Your task to perform on an android device: toggle notification dots Image 0: 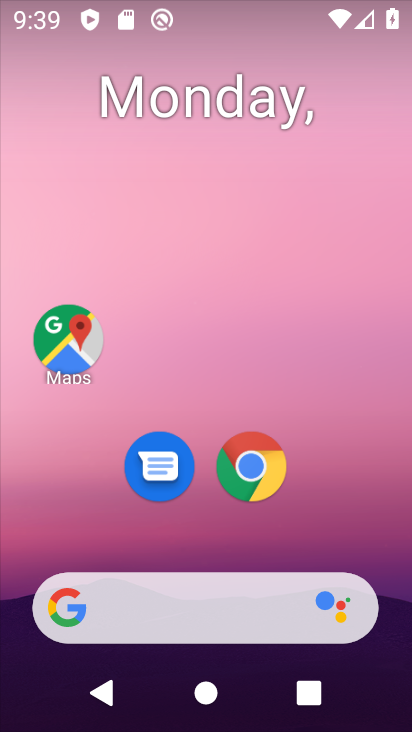
Step 0: press home button
Your task to perform on an android device: toggle notification dots Image 1: 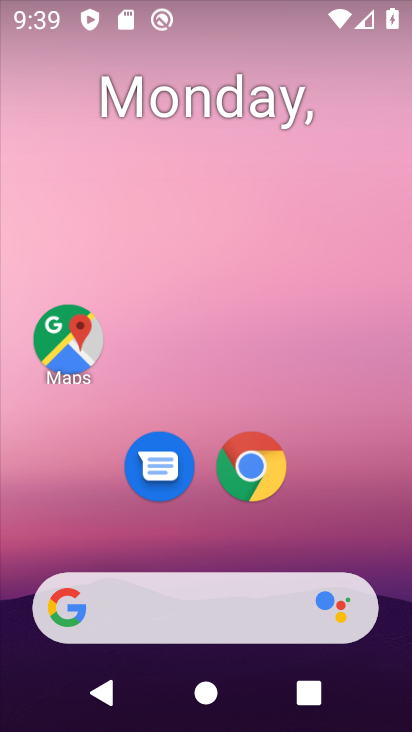
Step 1: drag from (380, 671) to (310, 0)
Your task to perform on an android device: toggle notification dots Image 2: 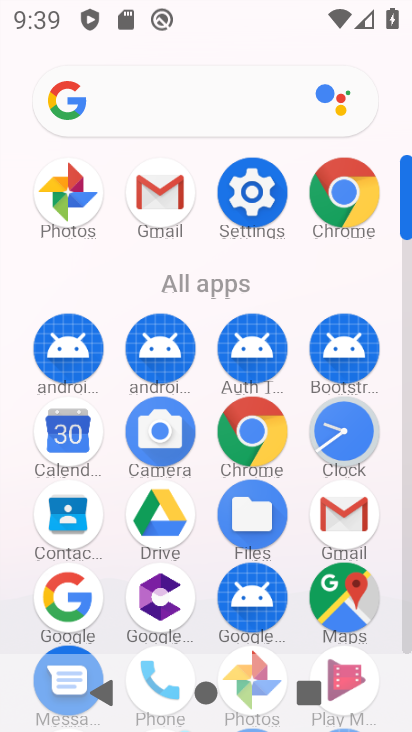
Step 2: click (274, 210)
Your task to perform on an android device: toggle notification dots Image 3: 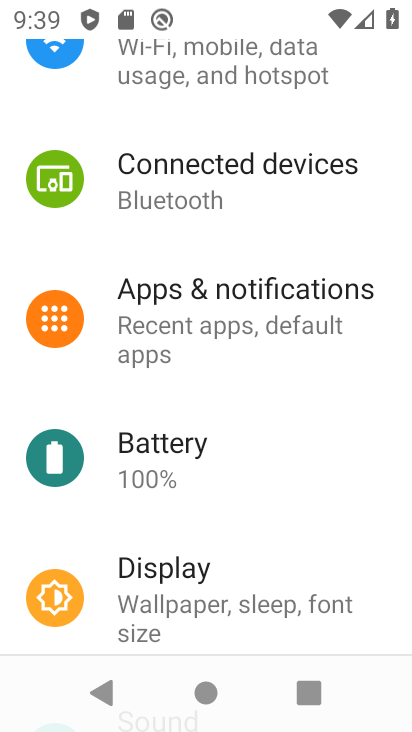
Step 3: click (197, 325)
Your task to perform on an android device: toggle notification dots Image 4: 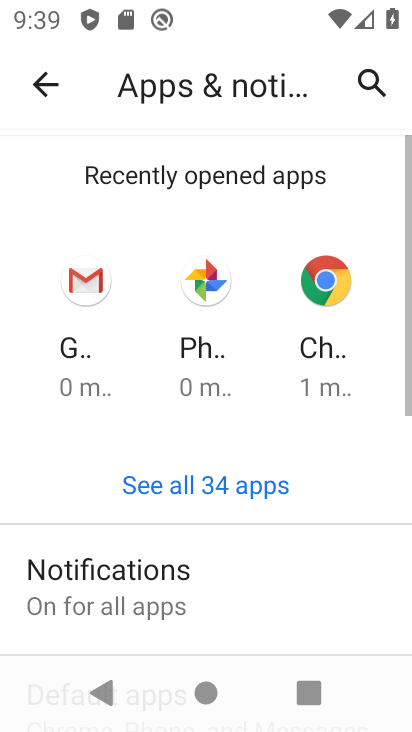
Step 4: click (68, 616)
Your task to perform on an android device: toggle notification dots Image 5: 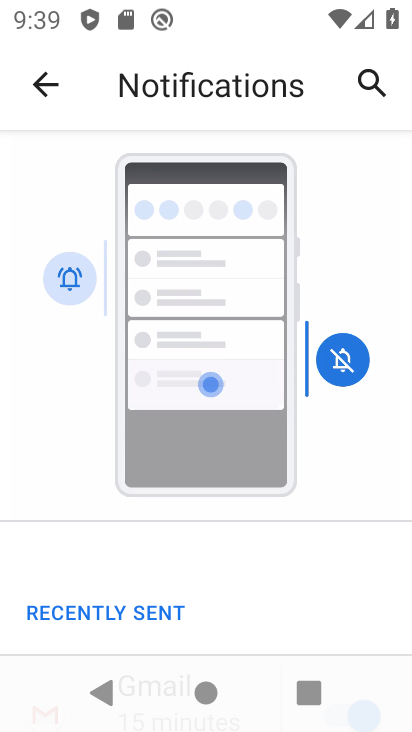
Step 5: drag from (275, 627) to (270, 297)
Your task to perform on an android device: toggle notification dots Image 6: 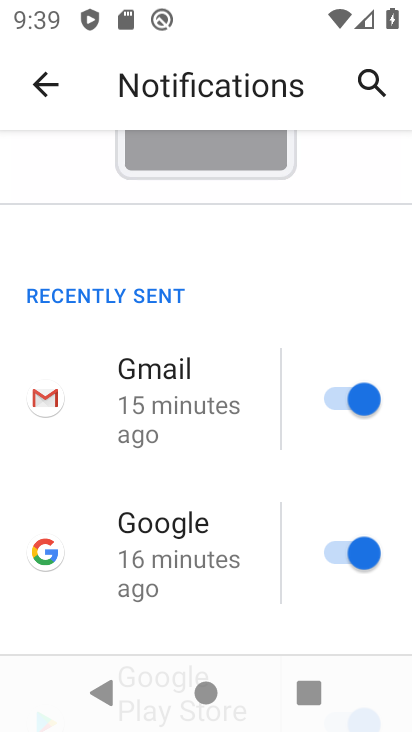
Step 6: drag from (39, 618) to (291, 80)
Your task to perform on an android device: toggle notification dots Image 7: 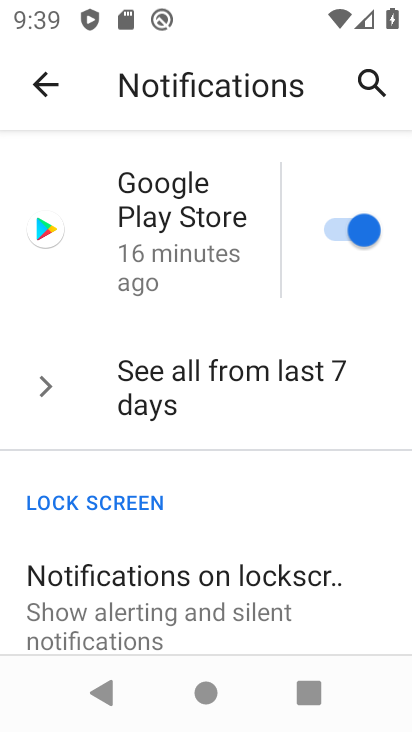
Step 7: drag from (204, 573) to (347, 91)
Your task to perform on an android device: toggle notification dots Image 8: 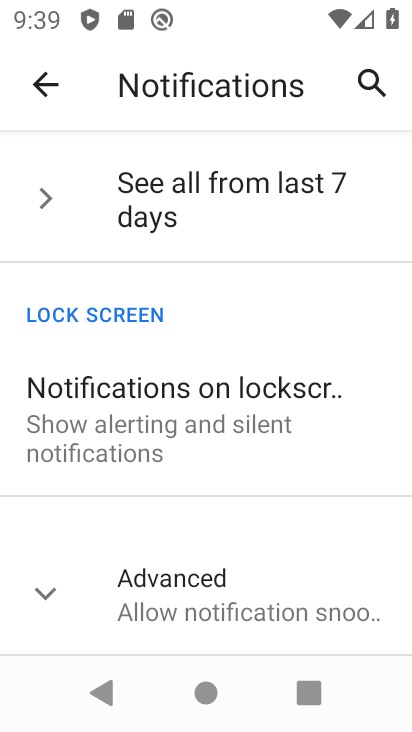
Step 8: click (241, 574)
Your task to perform on an android device: toggle notification dots Image 9: 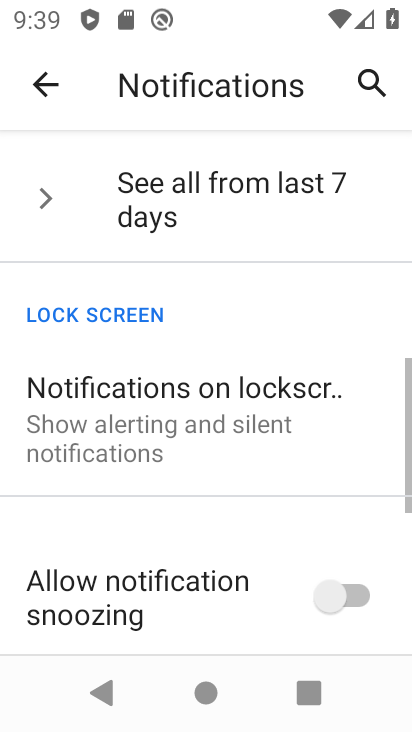
Step 9: drag from (241, 574) to (319, 99)
Your task to perform on an android device: toggle notification dots Image 10: 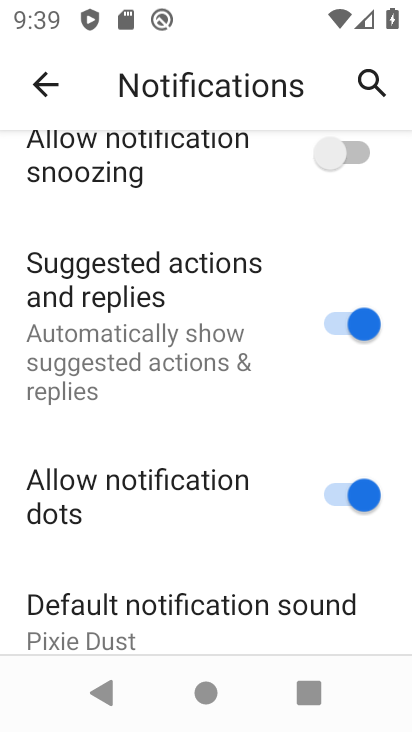
Step 10: click (186, 501)
Your task to perform on an android device: toggle notification dots Image 11: 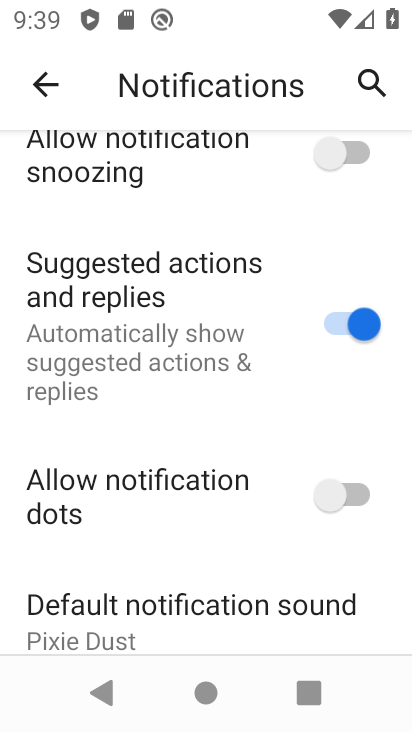
Step 11: task complete